Your task to perform on an android device: Open wifi settings Image 0: 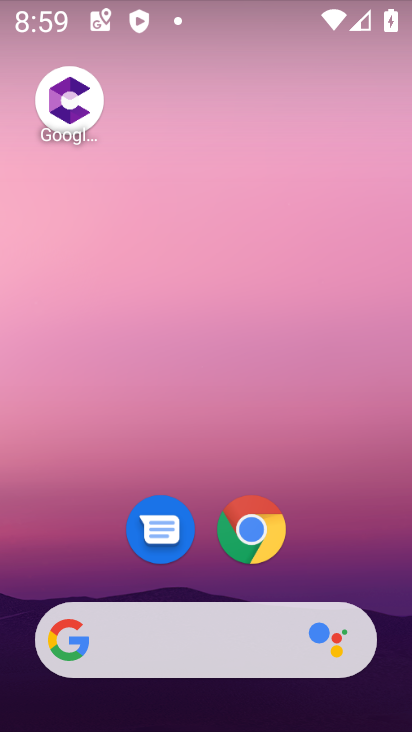
Step 0: drag from (358, 567) to (337, 335)
Your task to perform on an android device: Open wifi settings Image 1: 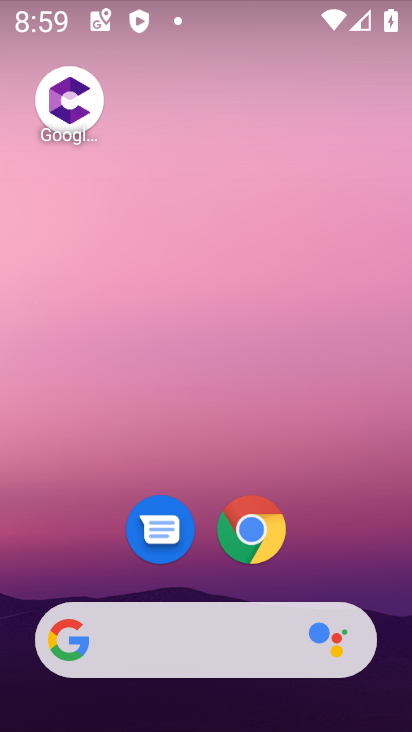
Step 1: drag from (367, 561) to (358, 232)
Your task to perform on an android device: Open wifi settings Image 2: 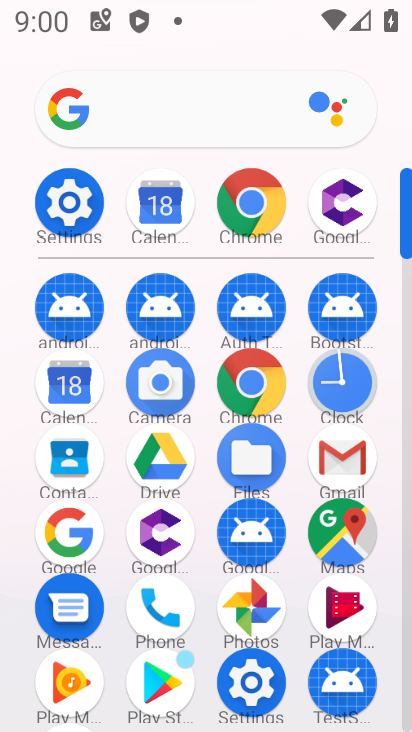
Step 2: click (65, 202)
Your task to perform on an android device: Open wifi settings Image 3: 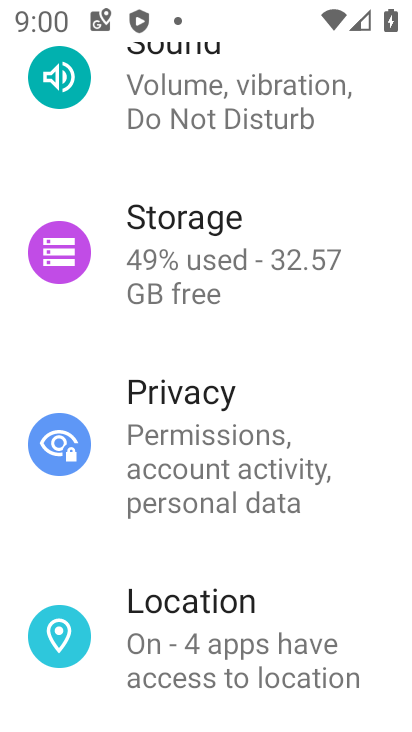
Step 3: drag from (343, 351) to (346, 435)
Your task to perform on an android device: Open wifi settings Image 4: 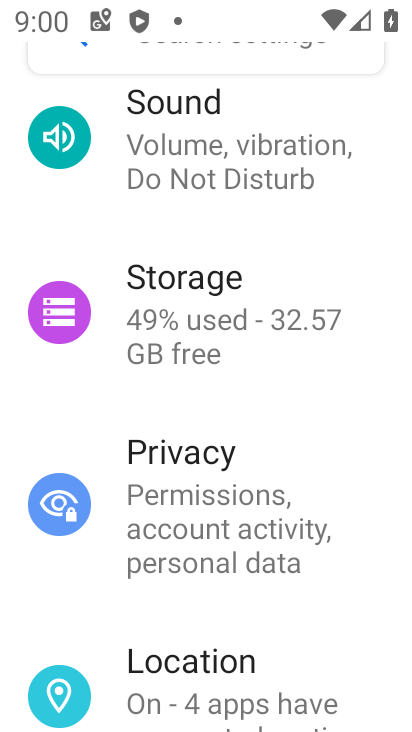
Step 4: drag from (365, 257) to (369, 388)
Your task to perform on an android device: Open wifi settings Image 5: 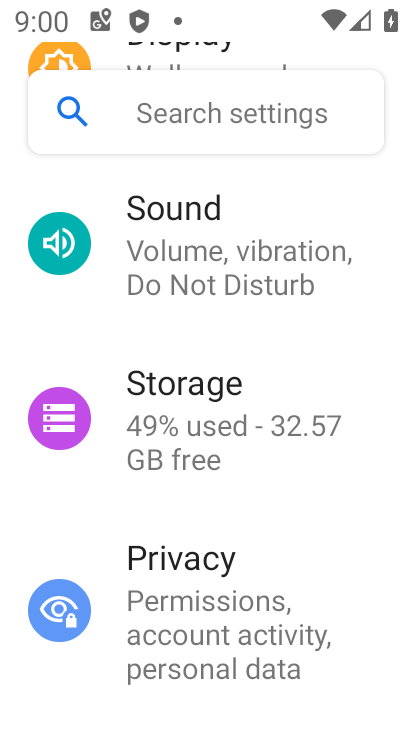
Step 5: drag from (375, 339) to (376, 410)
Your task to perform on an android device: Open wifi settings Image 6: 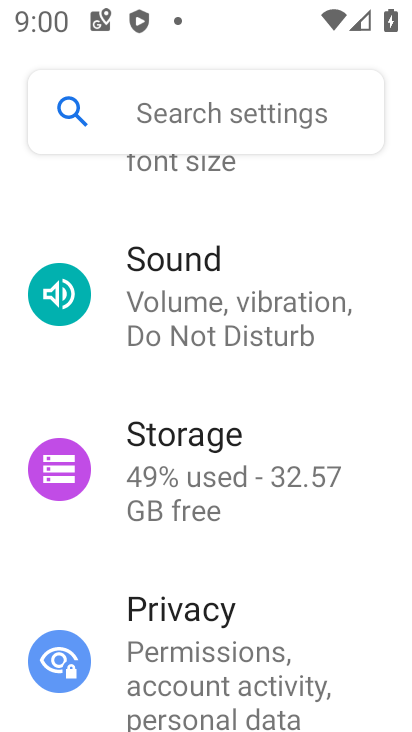
Step 6: drag from (368, 296) to (372, 398)
Your task to perform on an android device: Open wifi settings Image 7: 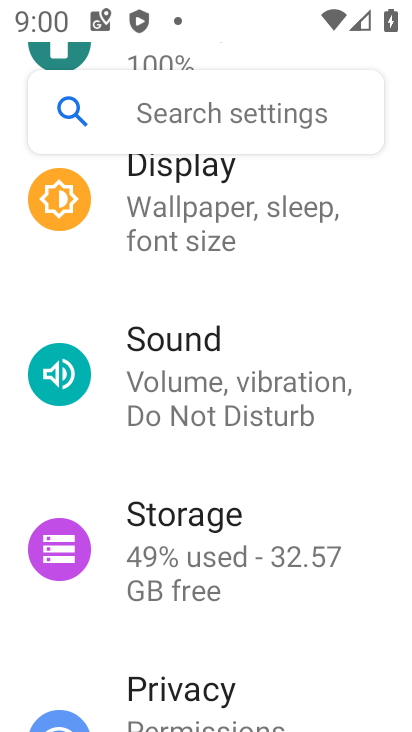
Step 7: drag from (360, 302) to (362, 388)
Your task to perform on an android device: Open wifi settings Image 8: 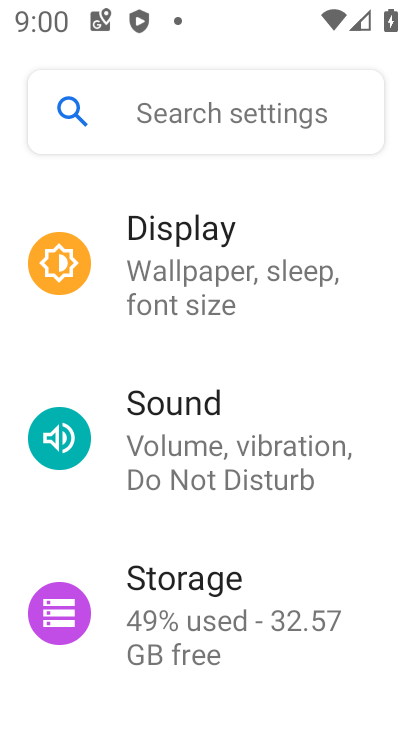
Step 8: drag from (373, 264) to (373, 361)
Your task to perform on an android device: Open wifi settings Image 9: 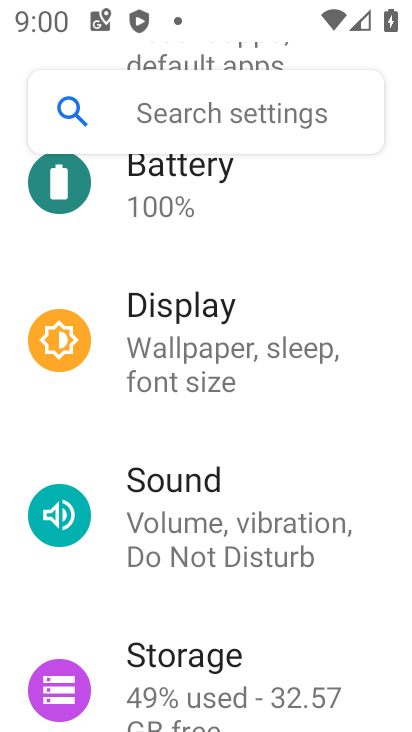
Step 9: drag from (358, 249) to (357, 371)
Your task to perform on an android device: Open wifi settings Image 10: 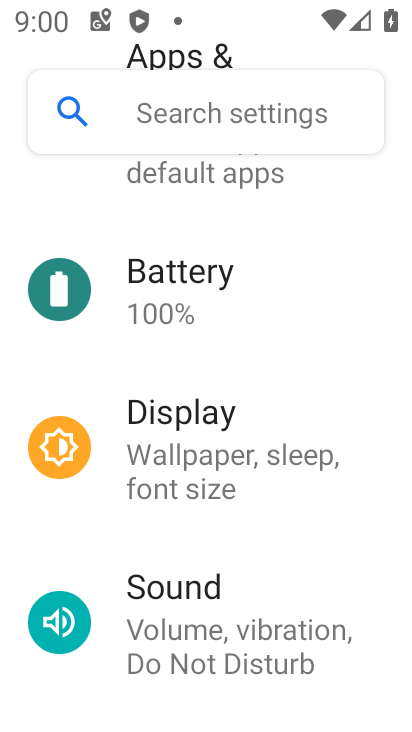
Step 10: drag from (361, 299) to (363, 342)
Your task to perform on an android device: Open wifi settings Image 11: 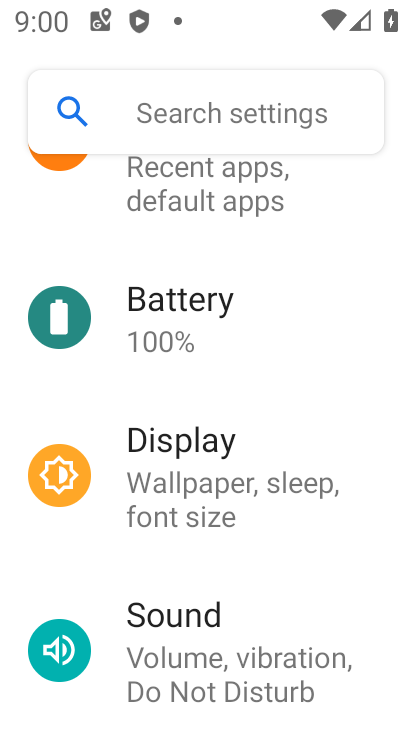
Step 11: drag from (346, 307) to (347, 373)
Your task to perform on an android device: Open wifi settings Image 12: 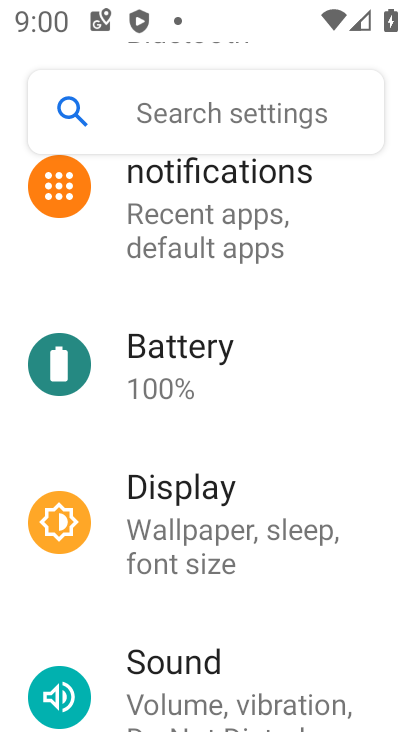
Step 12: click (363, 318)
Your task to perform on an android device: Open wifi settings Image 13: 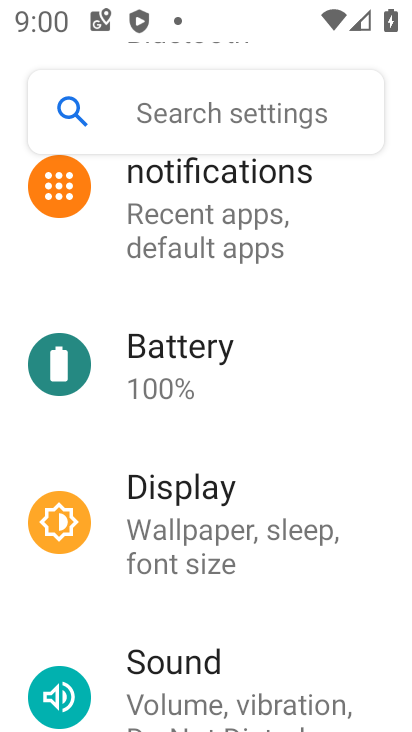
Step 13: drag from (373, 257) to (373, 376)
Your task to perform on an android device: Open wifi settings Image 14: 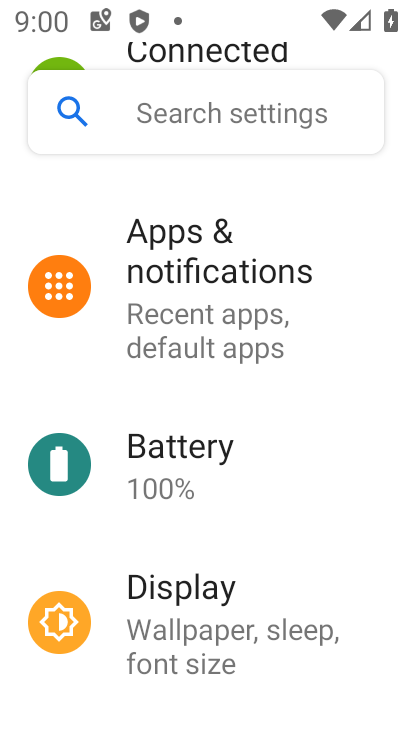
Step 14: drag from (362, 280) to (362, 382)
Your task to perform on an android device: Open wifi settings Image 15: 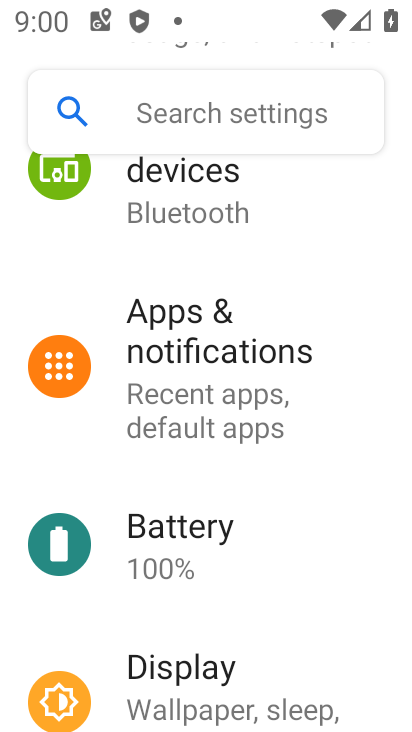
Step 15: drag from (354, 278) to (360, 368)
Your task to perform on an android device: Open wifi settings Image 16: 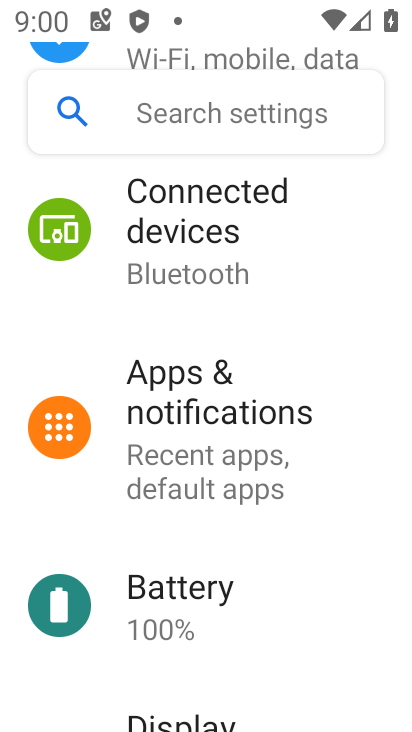
Step 16: drag from (367, 251) to (362, 355)
Your task to perform on an android device: Open wifi settings Image 17: 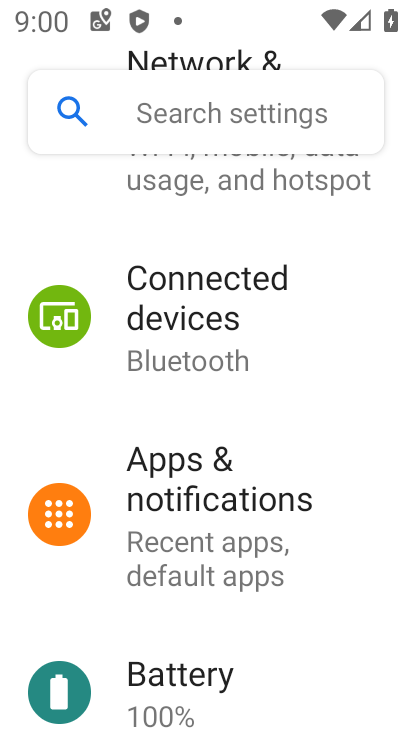
Step 17: drag from (366, 251) to (357, 362)
Your task to perform on an android device: Open wifi settings Image 18: 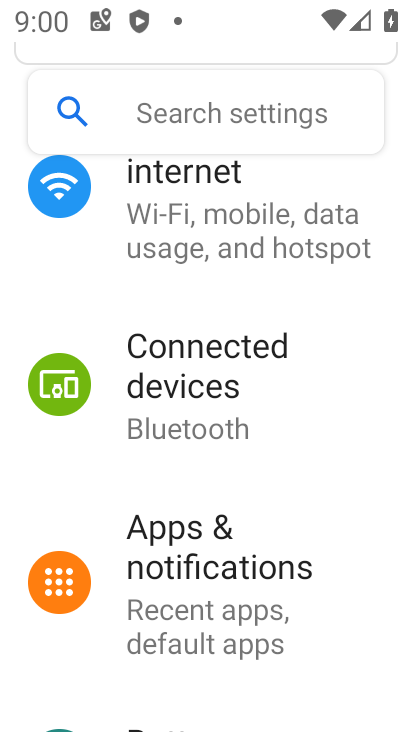
Step 18: drag from (362, 200) to (362, 332)
Your task to perform on an android device: Open wifi settings Image 19: 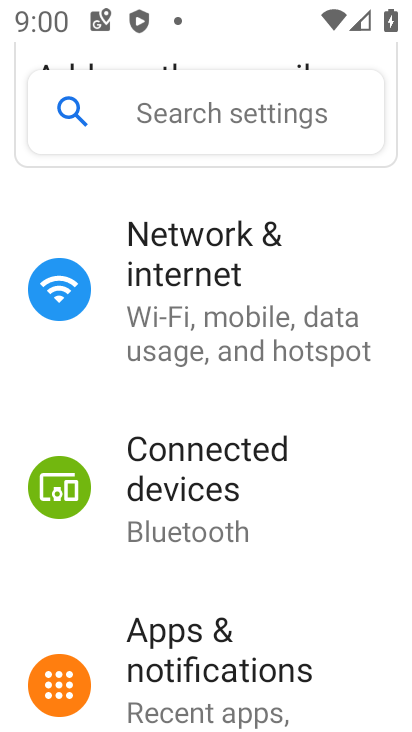
Step 19: drag from (364, 238) to (370, 378)
Your task to perform on an android device: Open wifi settings Image 20: 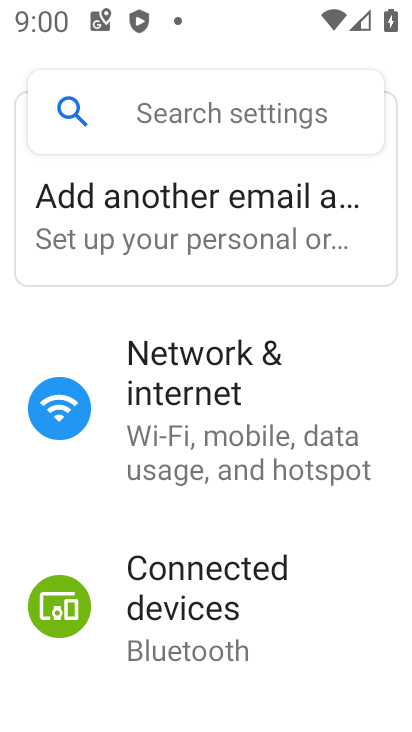
Step 20: click (265, 403)
Your task to perform on an android device: Open wifi settings Image 21: 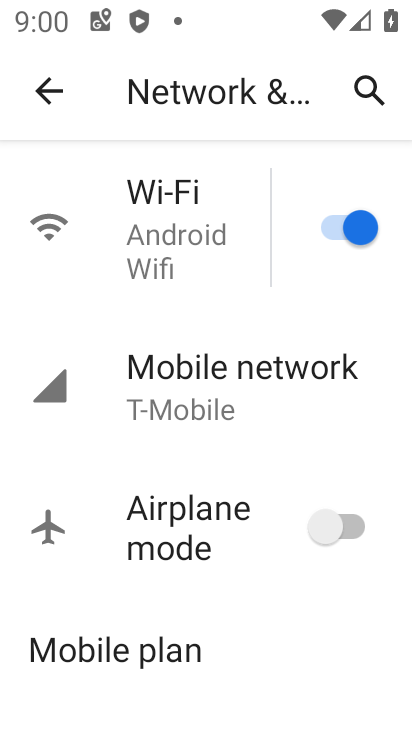
Step 21: click (187, 232)
Your task to perform on an android device: Open wifi settings Image 22: 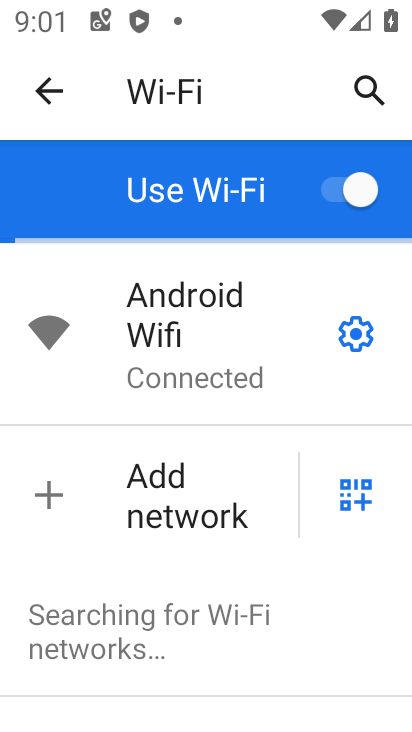
Step 22: task complete